Your task to perform on an android device: Add razer blade to the cart on costco.com Image 0: 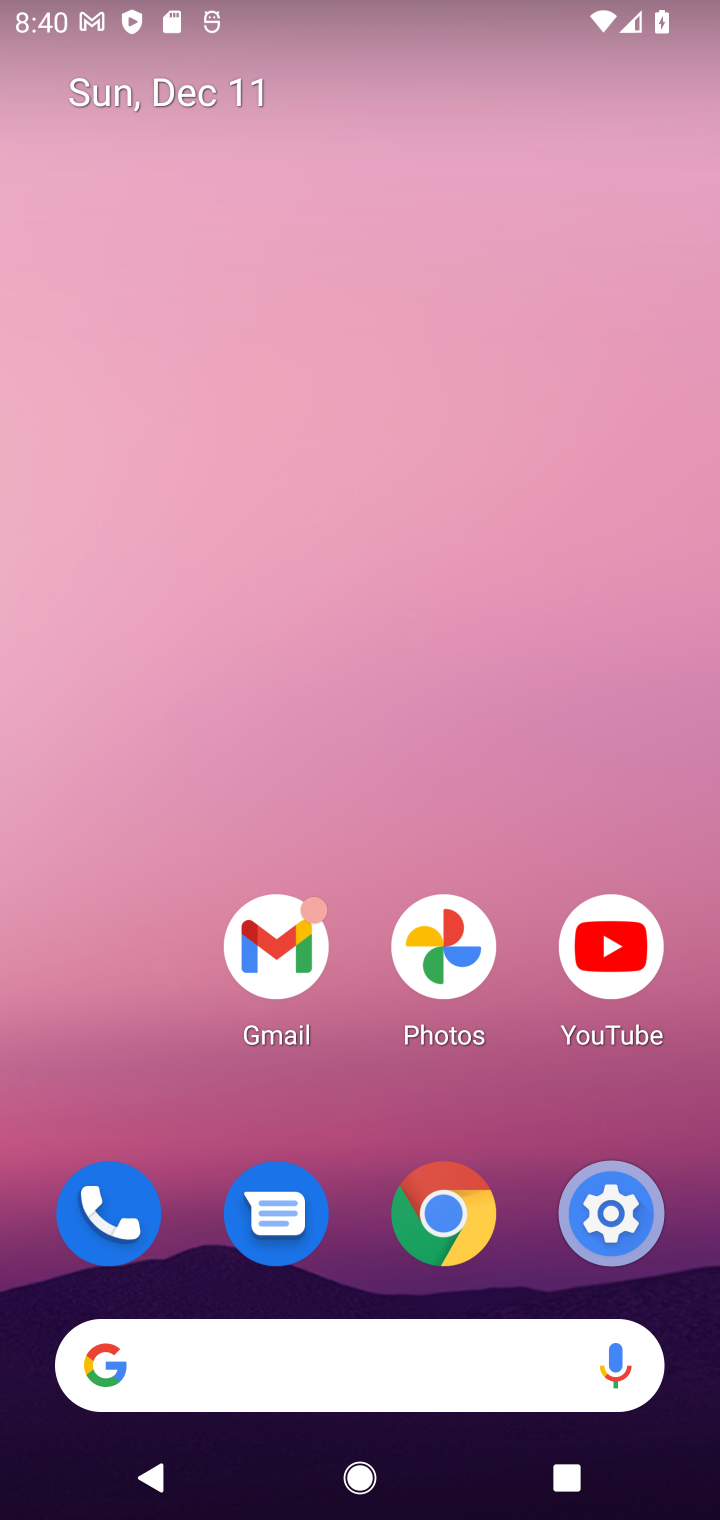
Step 0: press home button
Your task to perform on an android device: Add razer blade to the cart on costco.com Image 1: 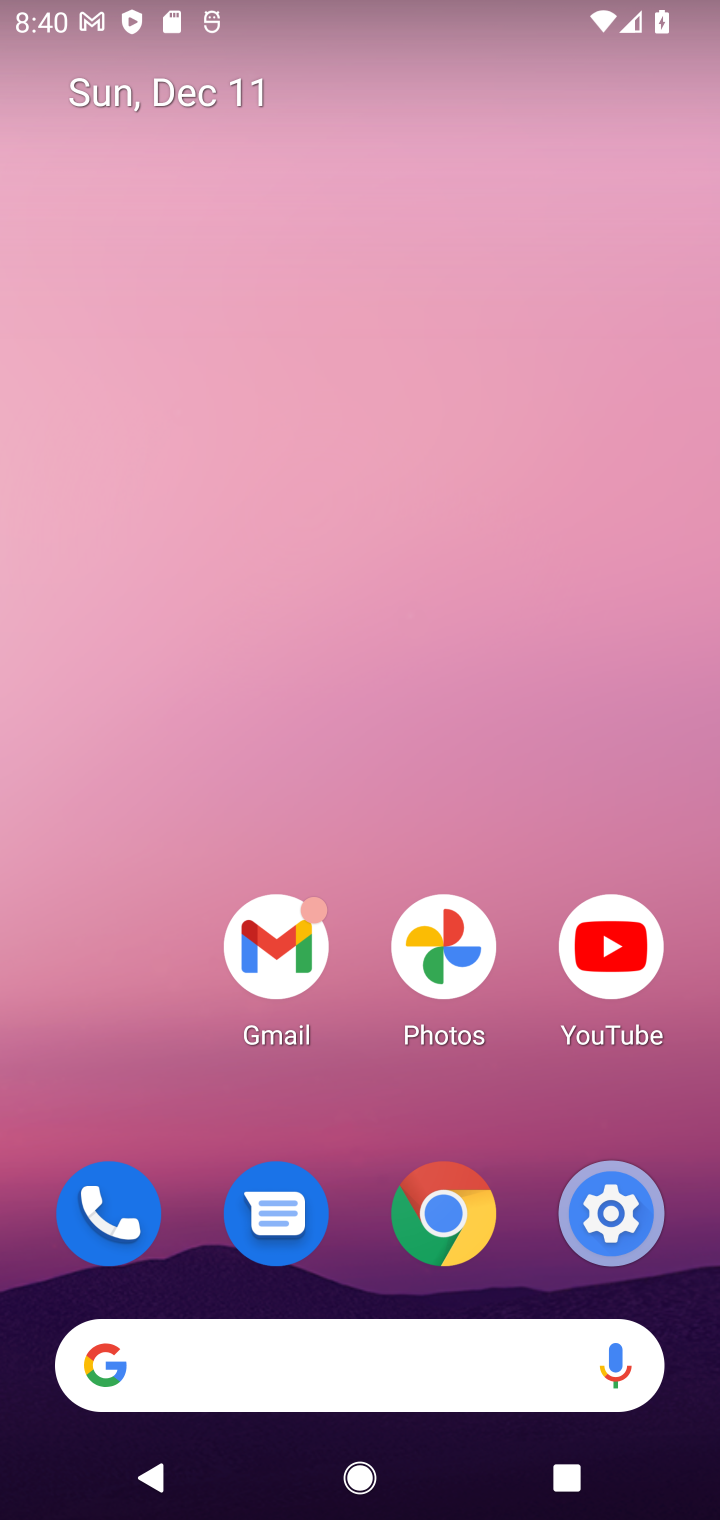
Step 1: click (360, 1395)
Your task to perform on an android device: Add razer blade to the cart on costco.com Image 2: 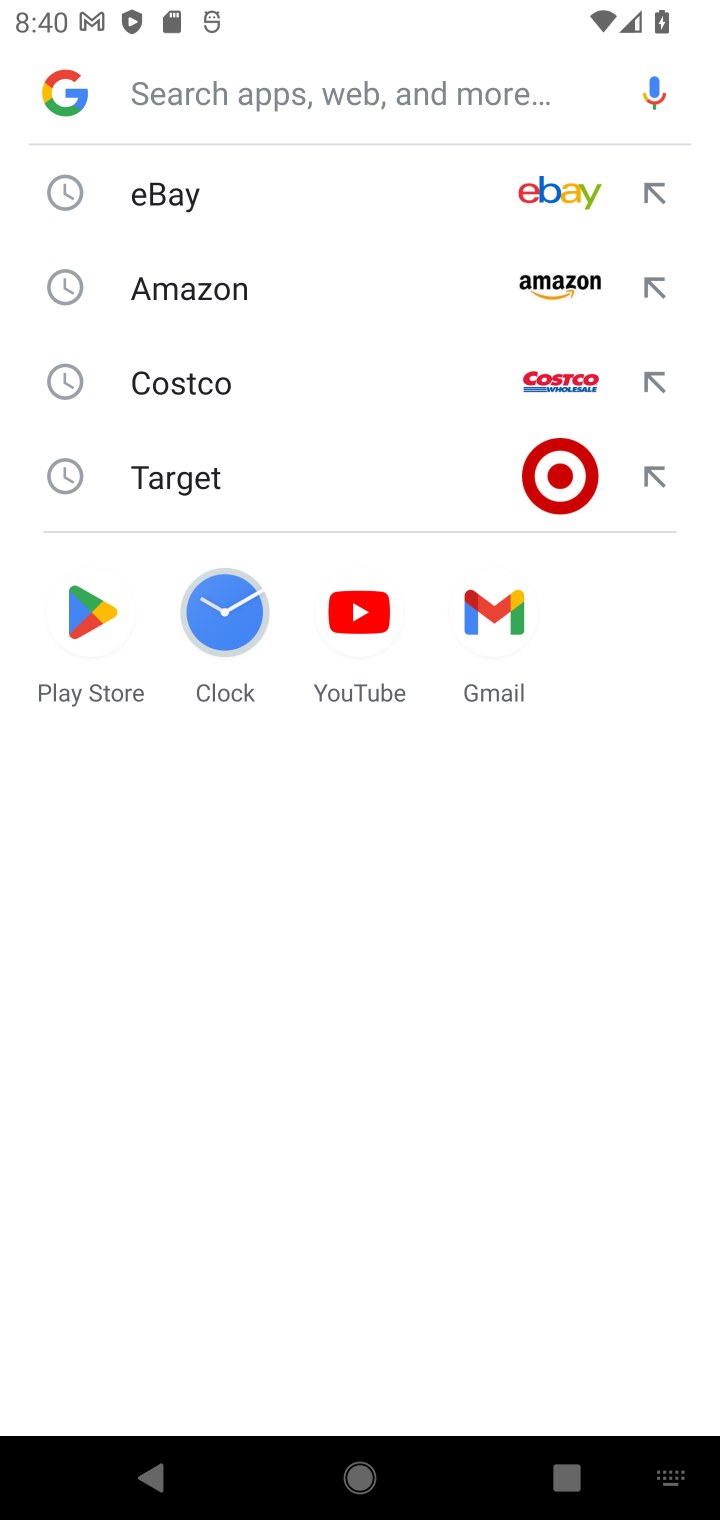
Step 2: type "costco"
Your task to perform on an android device: Add razer blade to the cart on costco.com Image 3: 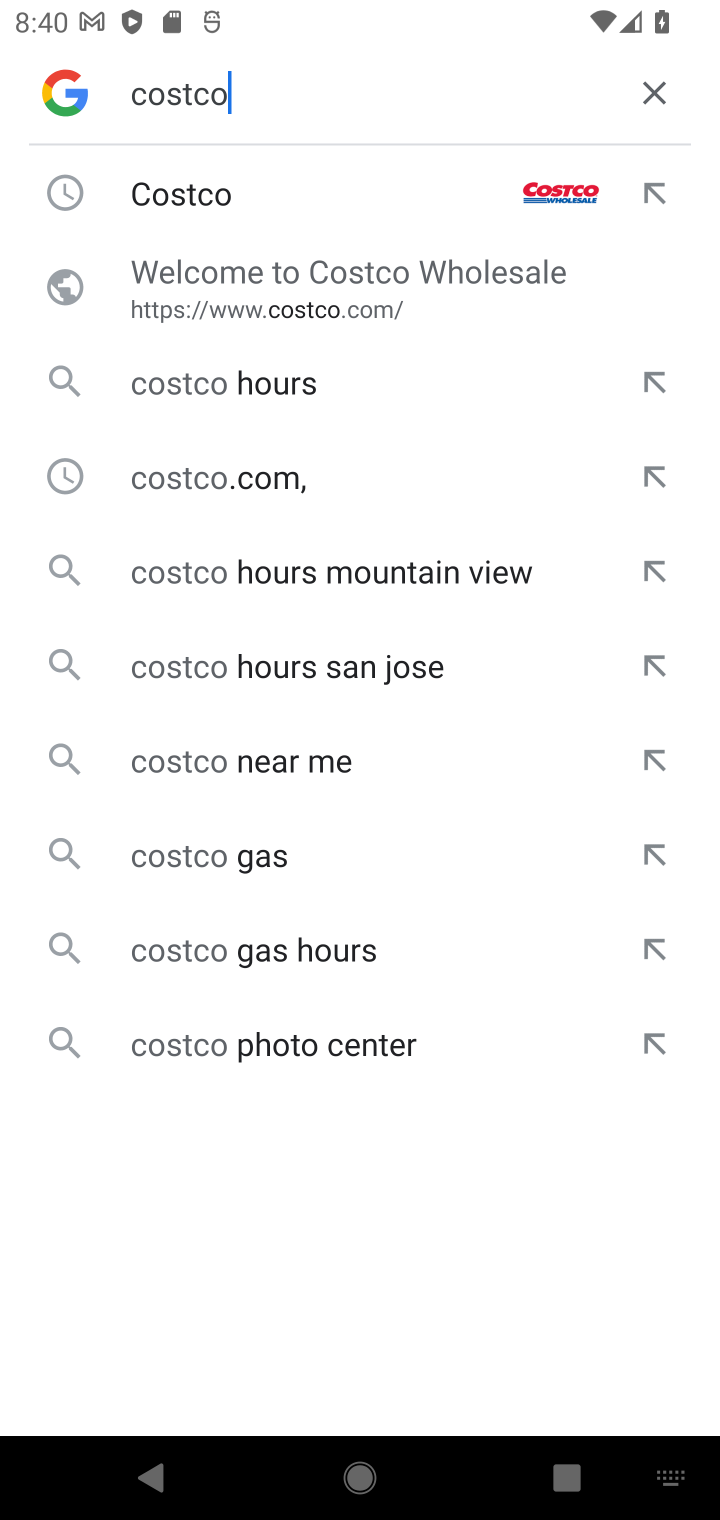
Step 3: click (366, 211)
Your task to perform on an android device: Add razer blade to the cart on costco.com Image 4: 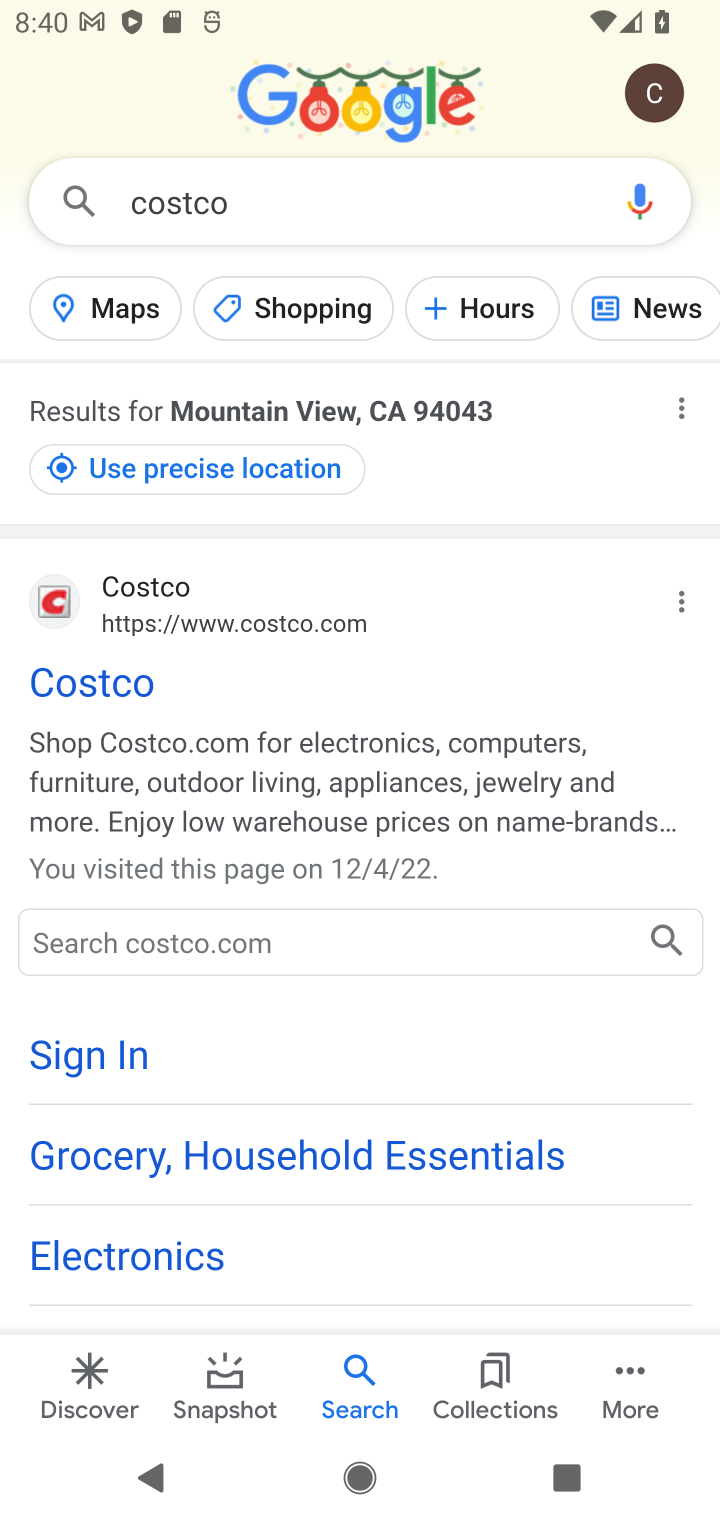
Step 4: click (153, 695)
Your task to perform on an android device: Add razer blade to the cart on costco.com Image 5: 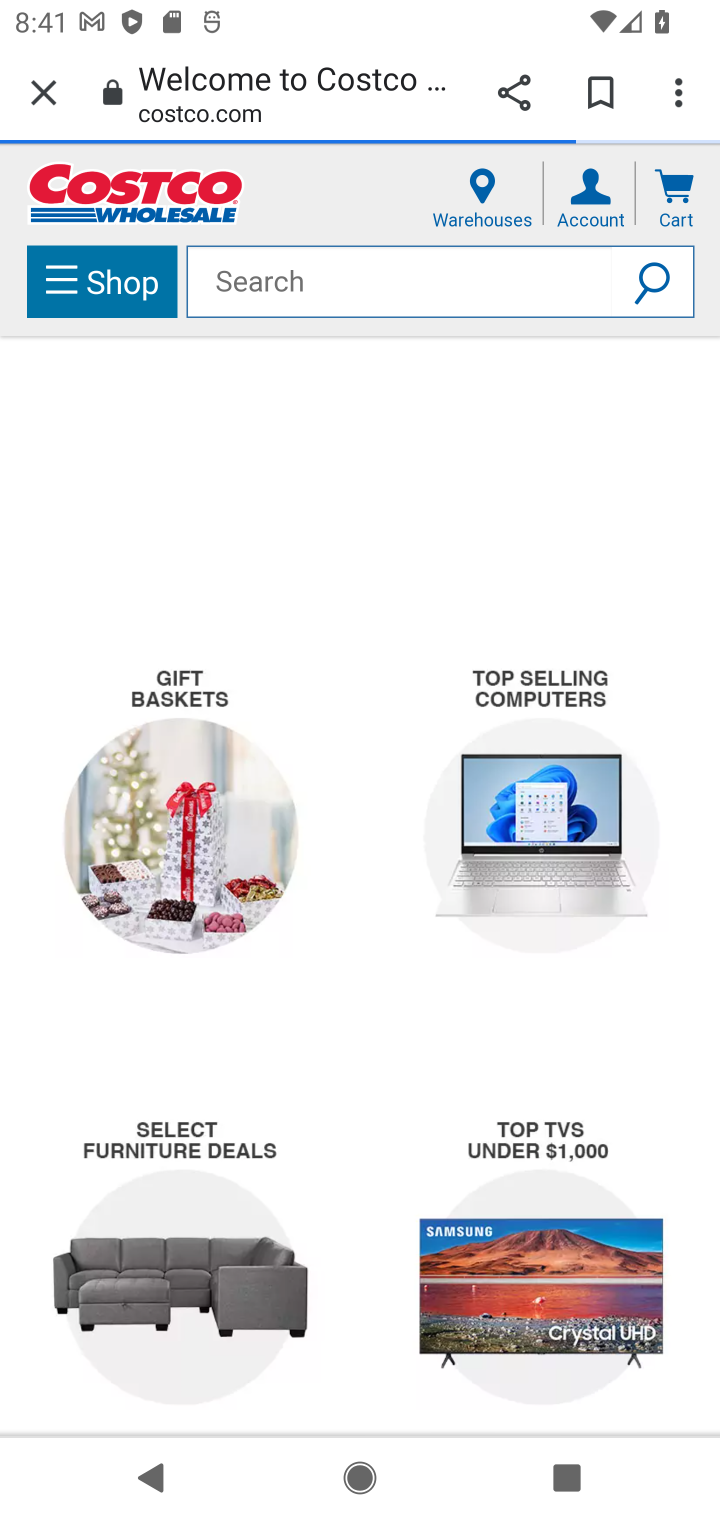
Step 5: click (345, 306)
Your task to perform on an android device: Add razer blade to the cart on costco.com Image 6: 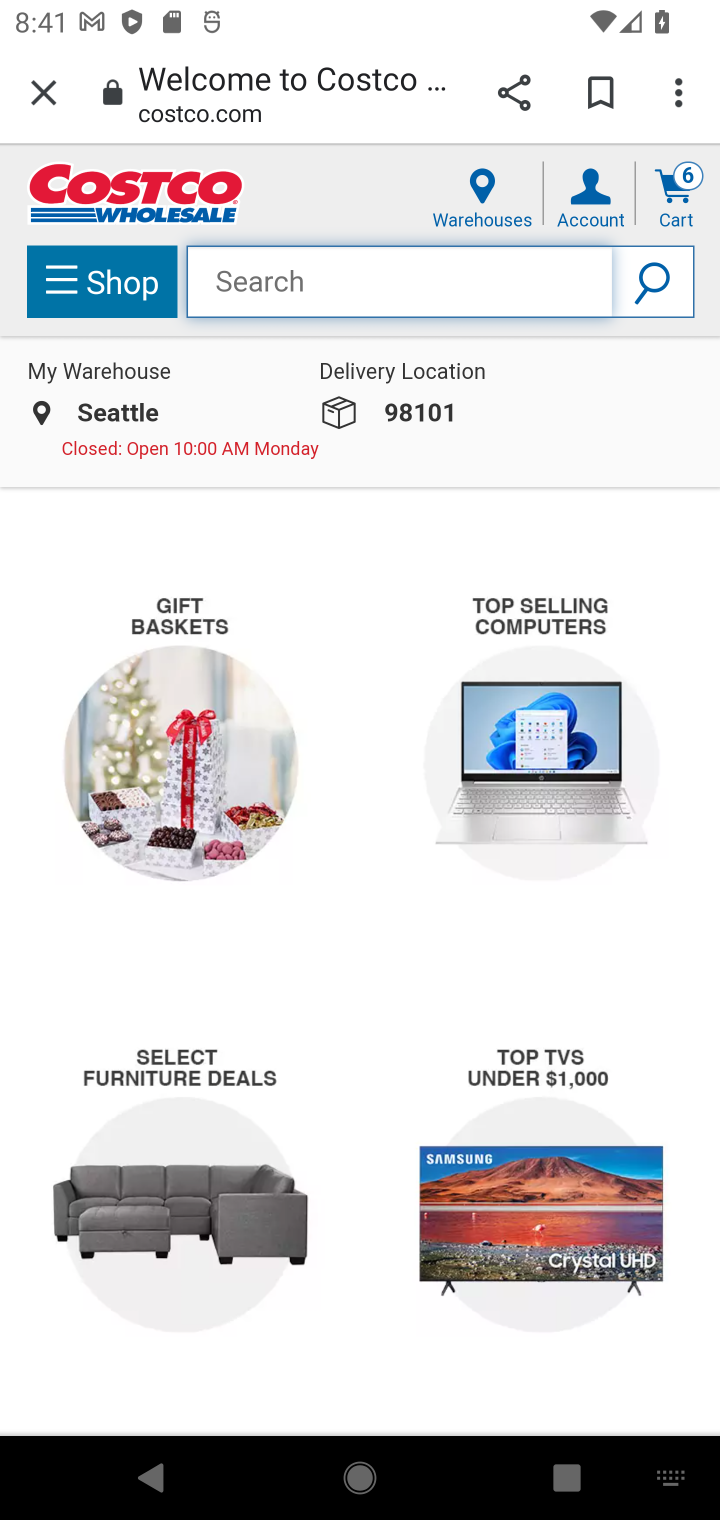
Step 6: type "razer blade"
Your task to perform on an android device: Add razer blade to the cart on costco.com Image 7: 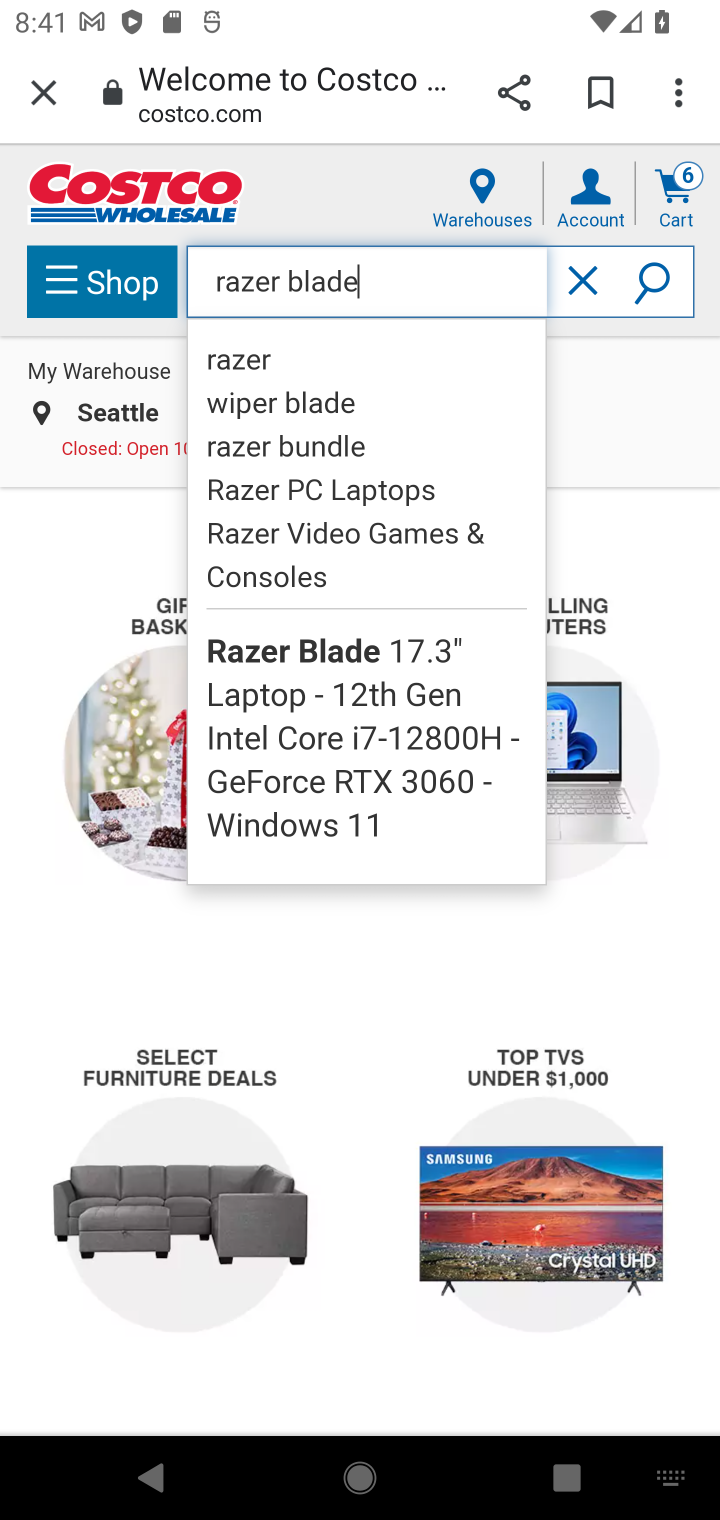
Step 7: click (644, 272)
Your task to perform on an android device: Add razer blade to the cart on costco.com Image 8: 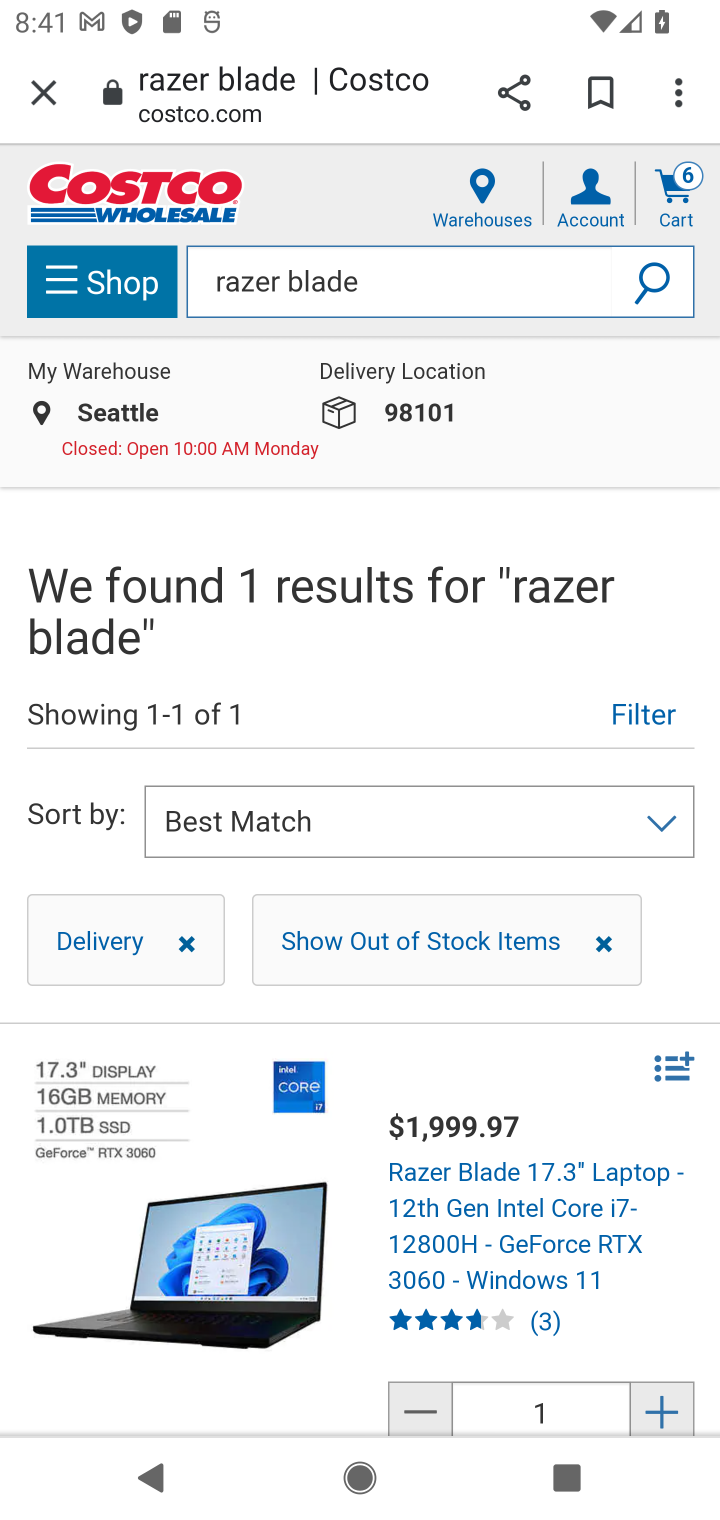
Step 8: drag from (323, 1367) to (347, 451)
Your task to perform on an android device: Add razer blade to the cart on costco.com Image 9: 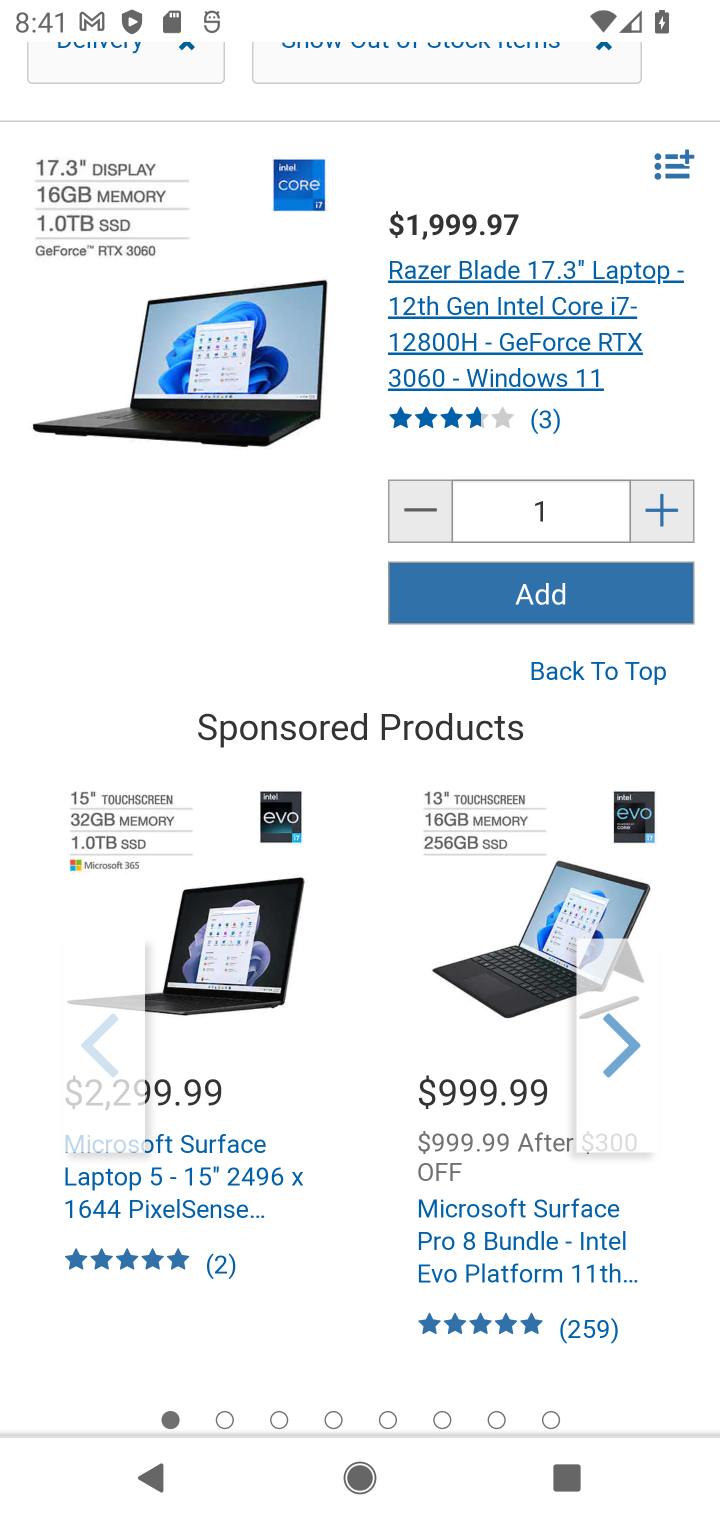
Step 9: click (513, 599)
Your task to perform on an android device: Add razer blade to the cart on costco.com Image 10: 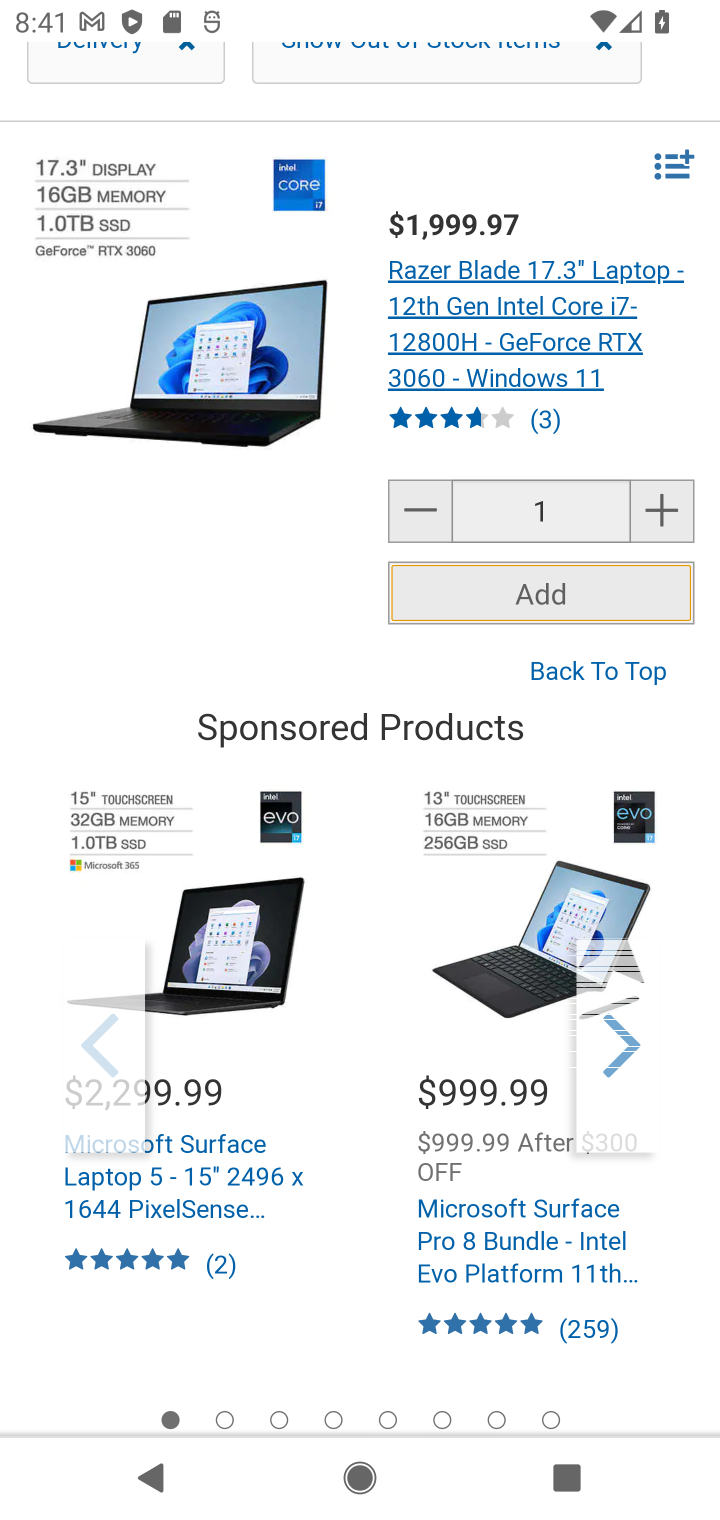
Step 10: task complete